Your task to perform on an android device: search for starred emails in the gmail app Image 0: 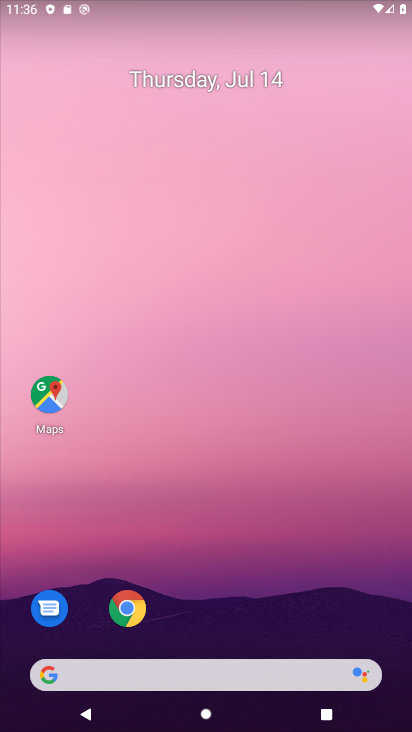
Step 0: drag from (284, 569) to (319, 81)
Your task to perform on an android device: search for starred emails in the gmail app Image 1: 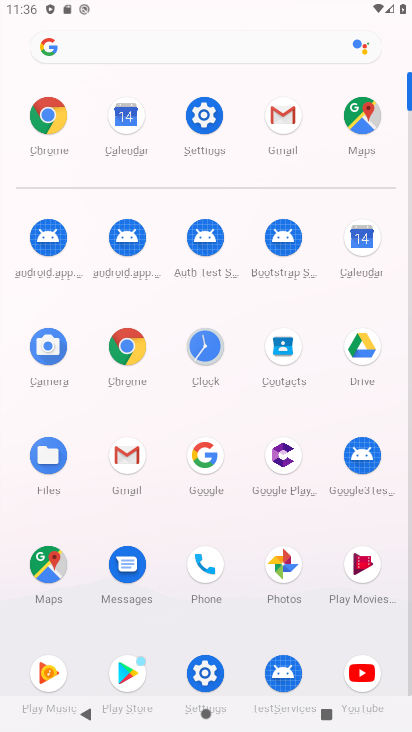
Step 1: click (120, 448)
Your task to perform on an android device: search for starred emails in the gmail app Image 2: 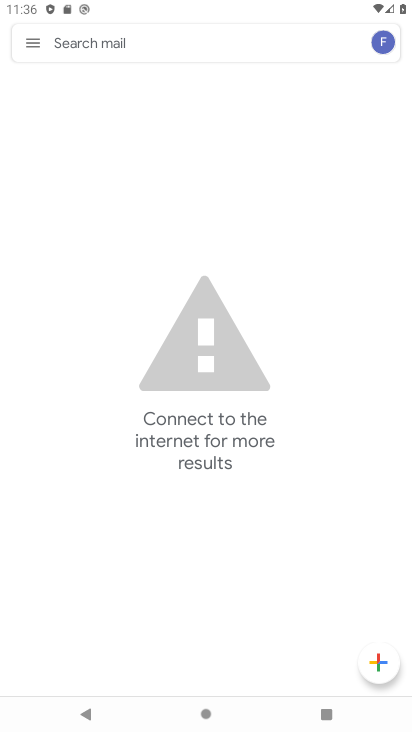
Step 2: click (37, 44)
Your task to perform on an android device: search for starred emails in the gmail app Image 3: 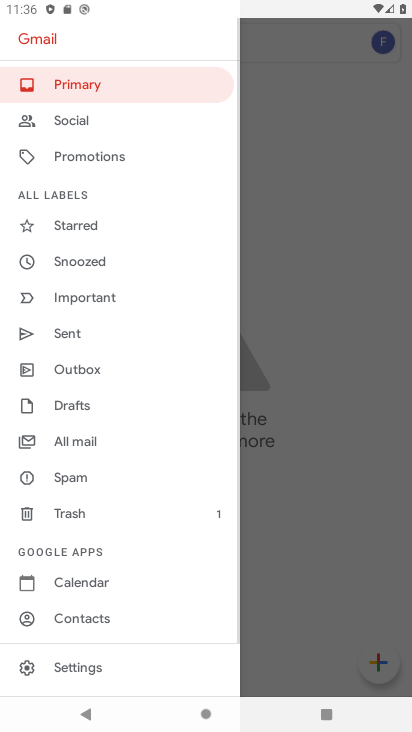
Step 3: click (94, 216)
Your task to perform on an android device: search for starred emails in the gmail app Image 4: 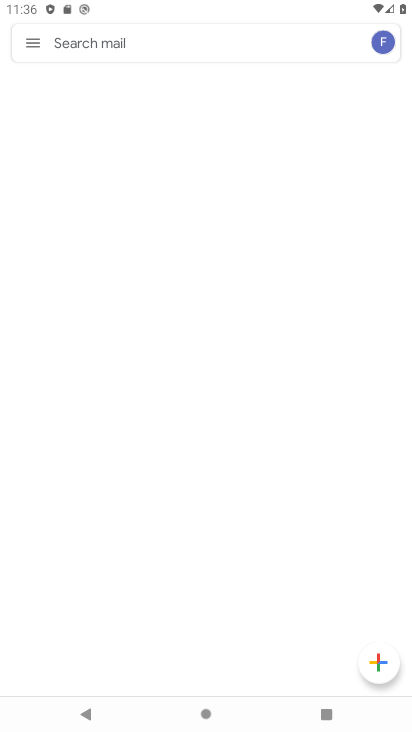
Step 4: task complete